Your task to perform on an android device: empty trash in google photos Image 0: 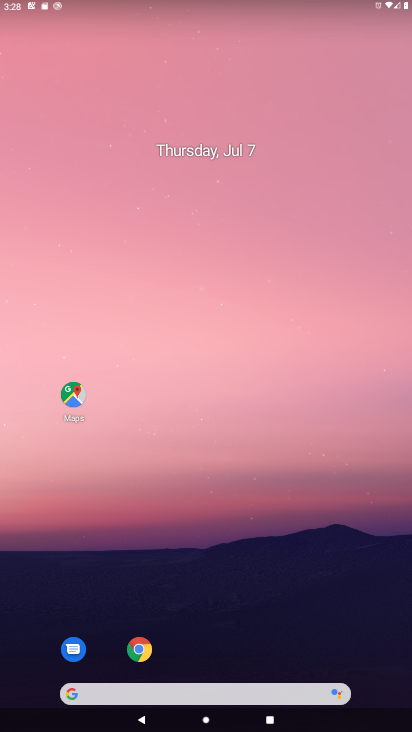
Step 0: drag from (111, 4) to (232, 11)
Your task to perform on an android device: empty trash in google photos Image 1: 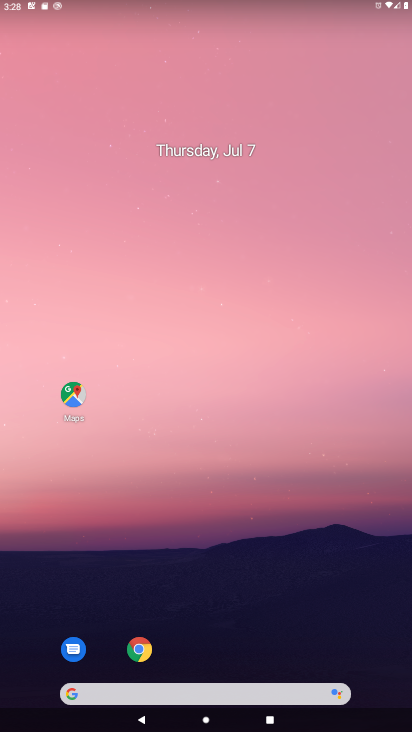
Step 1: drag from (194, 617) to (249, 2)
Your task to perform on an android device: empty trash in google photos Image 2: 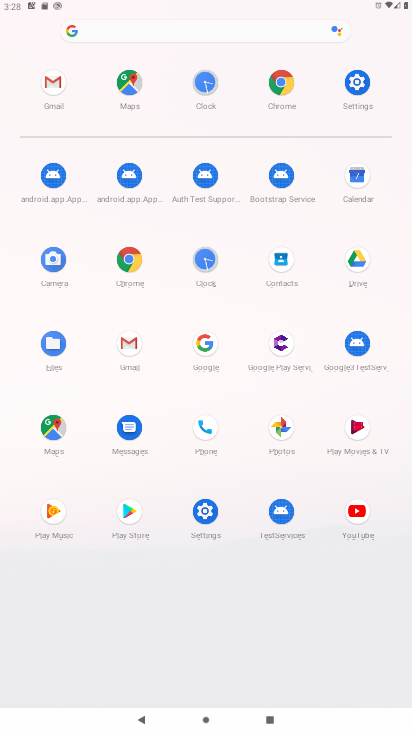
Step 2: click (282, 425)
Your task to perform on an android device: empty trash in google photos Image 3: 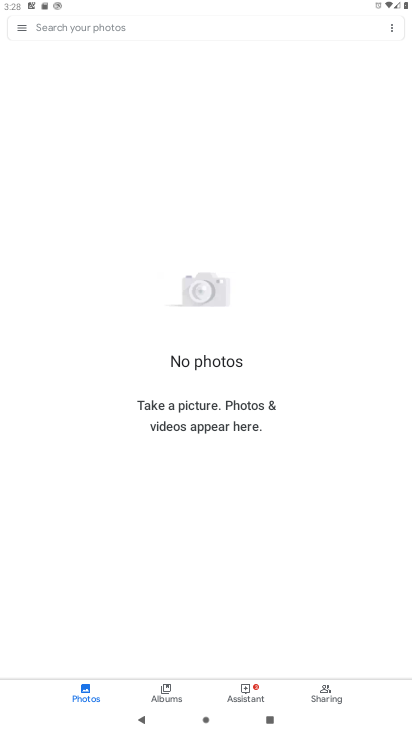
Step 3: click (16, 29)
Your task to perform on an android device: empty trash in google photos Image 4: 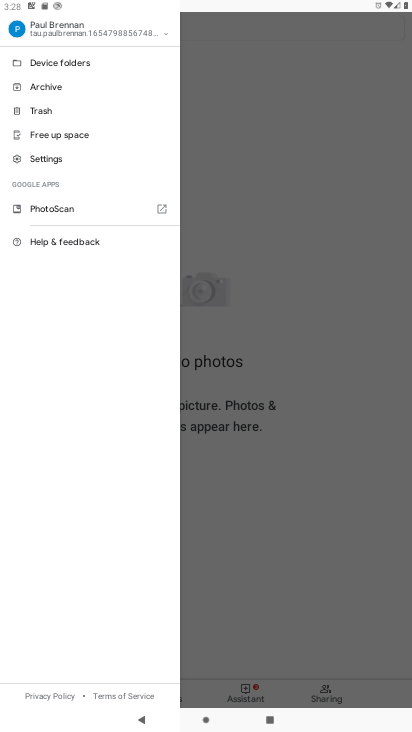
Step 4: click (47, 106)
Your task to perform on an android device: empty trash in google photos Image 5: 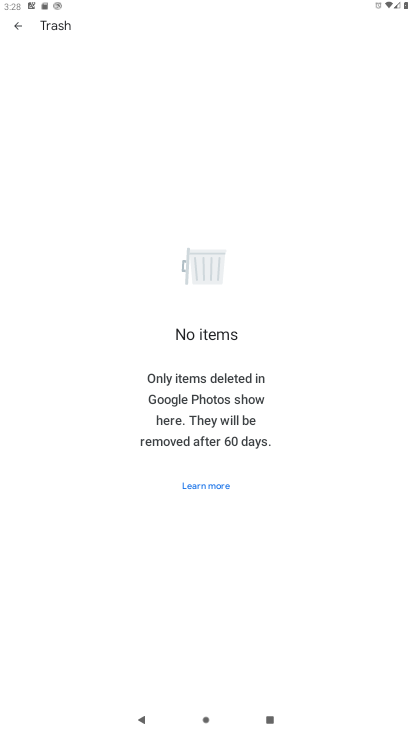
Step 5: task complete